Your task to perform on an android device: change notification settings in the gmail app Image 0: 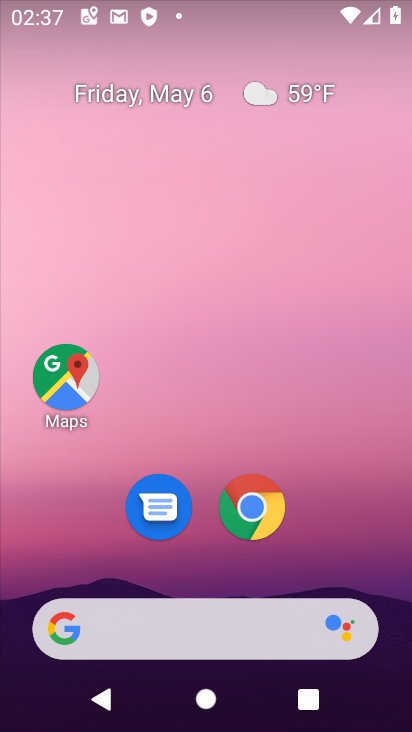
Step 0: drag from (340, 559) to (346, 147)
Your task to perform on an android device: change notification settings in the gmail app Image 1: 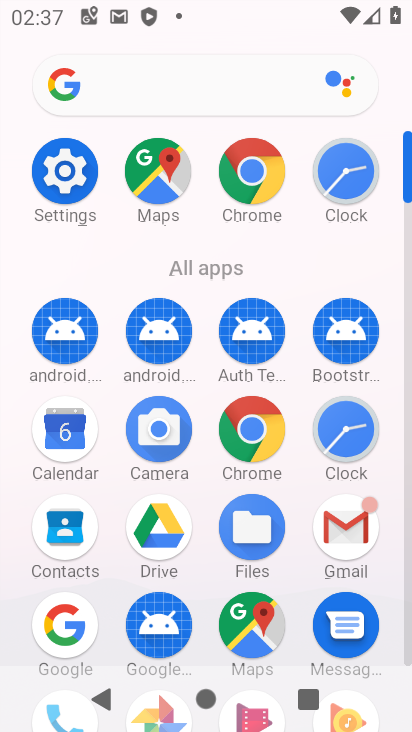
Step 1: click (358, 536)
Your task to perform on an android device: change notification settings in the gmail app Image 2: 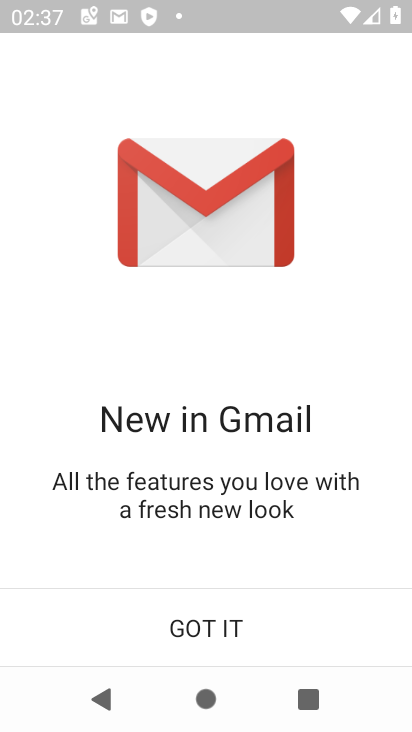
Step 2: click (253, 638)
Your task to perform on an android device: change notification settings in the gmail app Image 3: 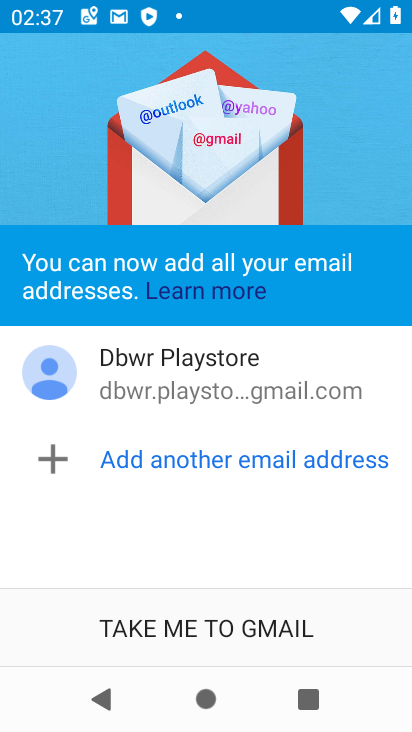
Step 3: click (253, 638)
Your task to perform on an android device: change notification settings in the gmail app Image 4: 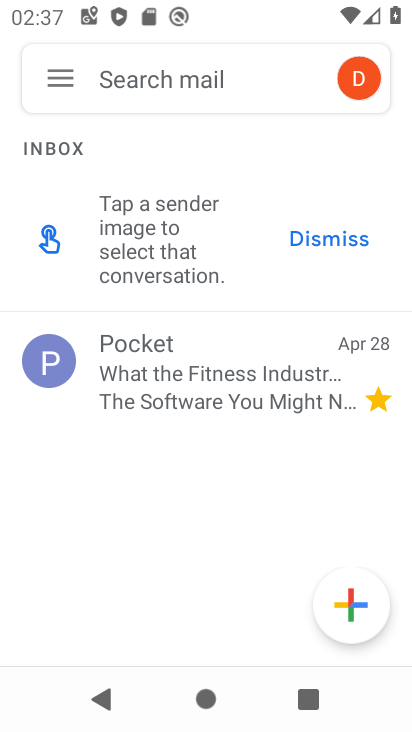
Step 4: click (61, 75)
Your task to perform on an android device: change notification settings in the gmail app Image 5: 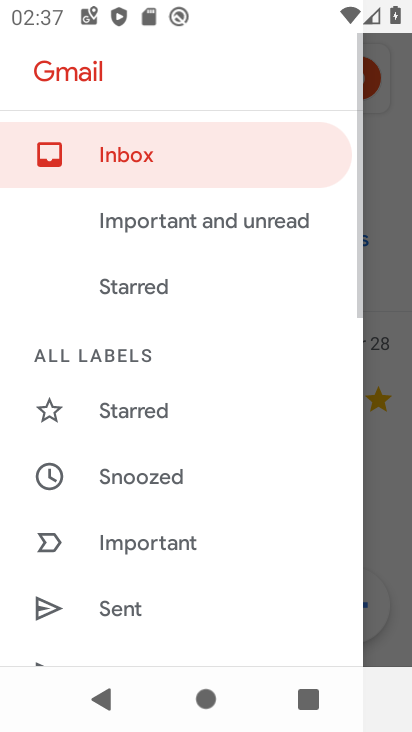
Step 5: drag from (165, 585) to (185, 292)
Your task to perform on an android device: change notification settings in the gmail app Image 6: 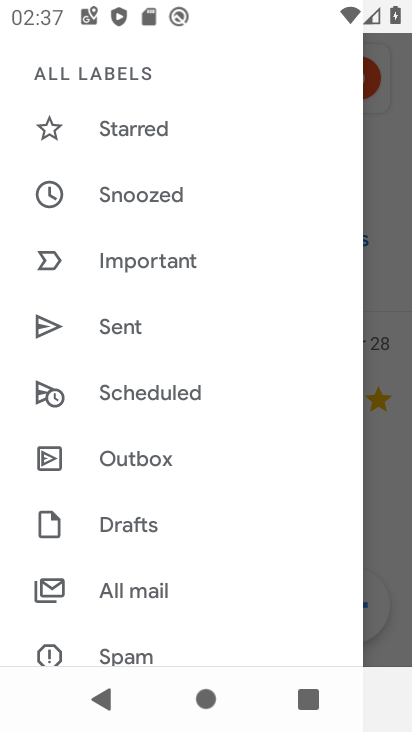
Step 6: drag from (201, 596) to (204, 312)
Your task to perform on an android device: change notification settings in the gmail app Image 7: 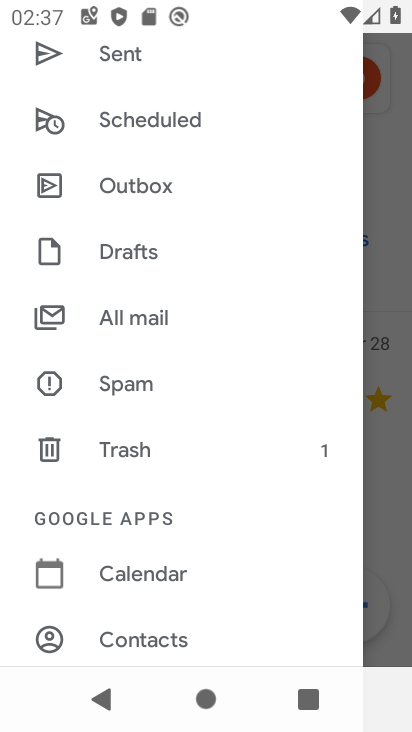
Step 7: drag from (178, 600) to (171, 325)
Your task to perform on an android device: change notification settings in the gmail app Image 8: 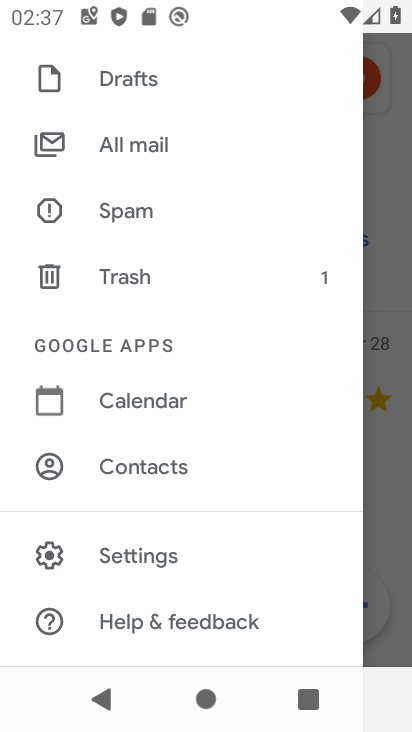
Step 8: click (161, 558)
Your task to perform on an android device: change notification settings in the gmail app Image 9: 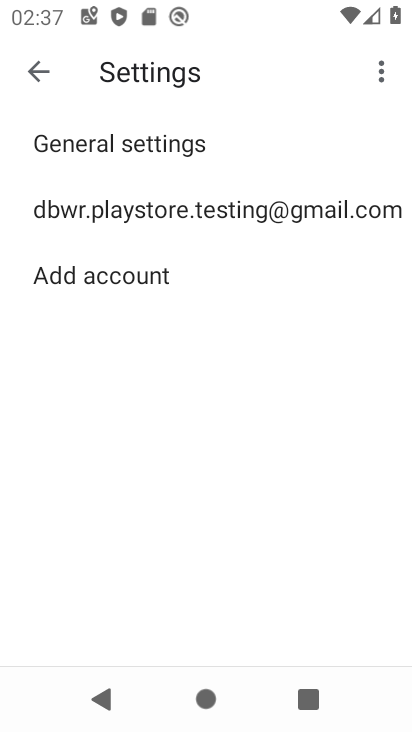
Step 9: click (179, 213)
Your task to perform on an android device: change notification settings in the gmail app Image 10: 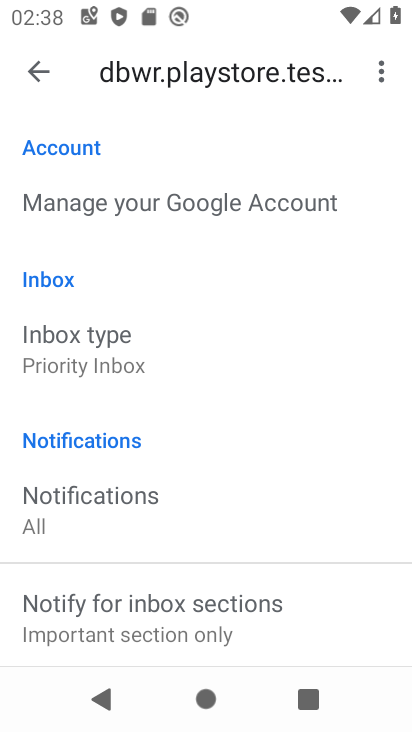
Step 10: drag from (143, 534) to (179, 273)
Your task to perform on an android device: change notification settings in the gmail app Image 11: 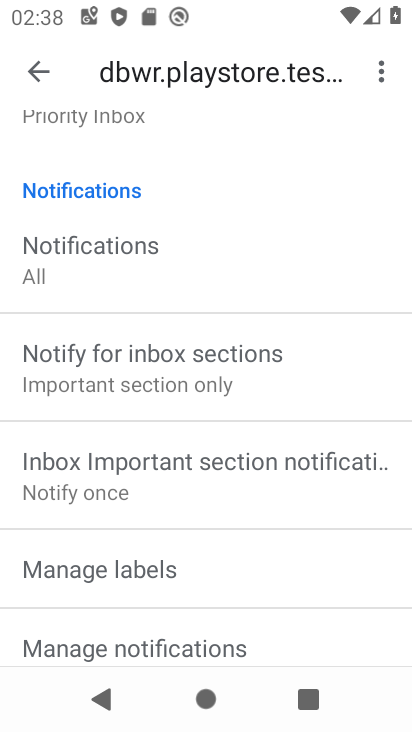
Step 11: click (225, 648)
Your task to perform on an android device: change notification settings in the gmail app Image 12: 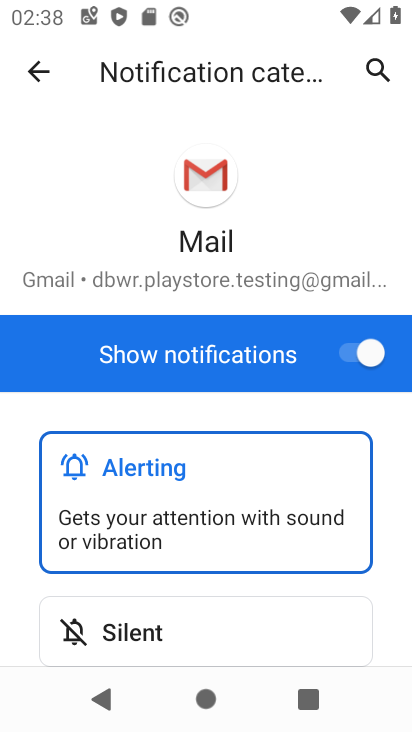
Step 12: click (372, 361)
Your task to perform on an android device: change notification settings in the gmail app Image 13: 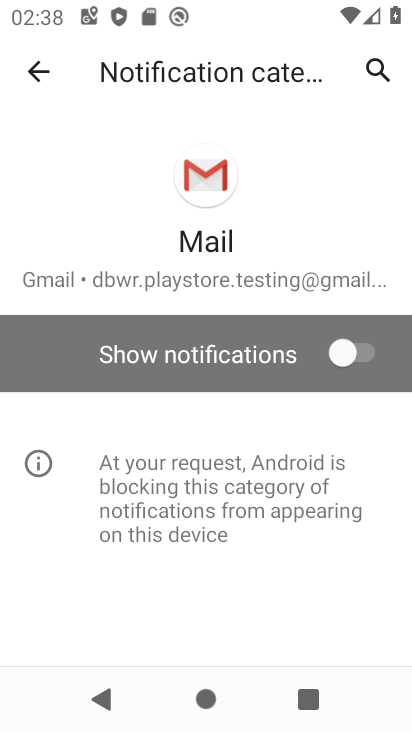
Step 13: task complete